Your task to perform on an android device: Search for vegetarian restaurants on Maps Image 0: 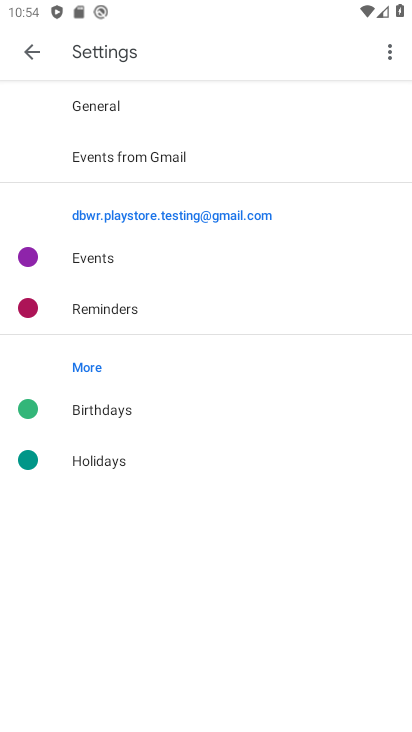
Step 0: press home button
Your task to perform on an android device: Search for vegetarian restaurants on Maps Image 1: 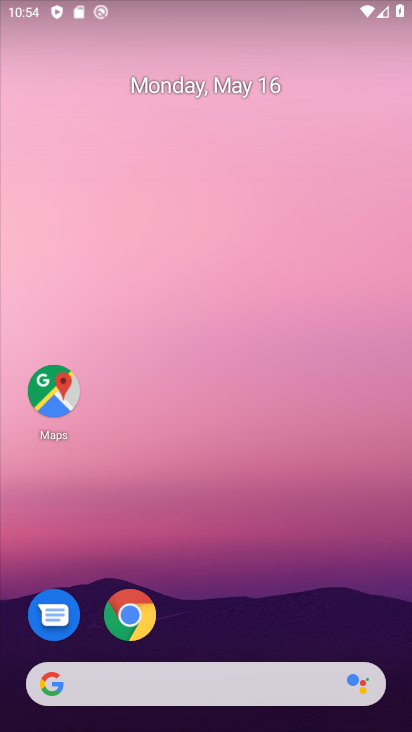
Step 1: drag from (216, 724) to (214, 206)
Your task to perform on an android device: Search for vegetarian restaurants on Maps Image 2: 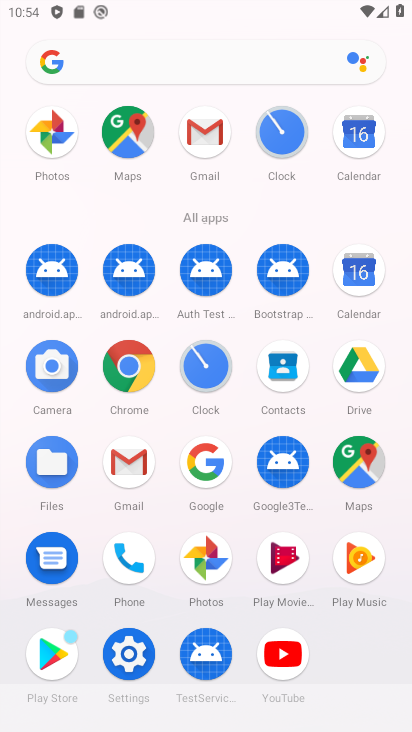
Step 2: click (358, 458)
Your task to perform on an android device: Search for vegetarian restaurants on Maps Image 3: 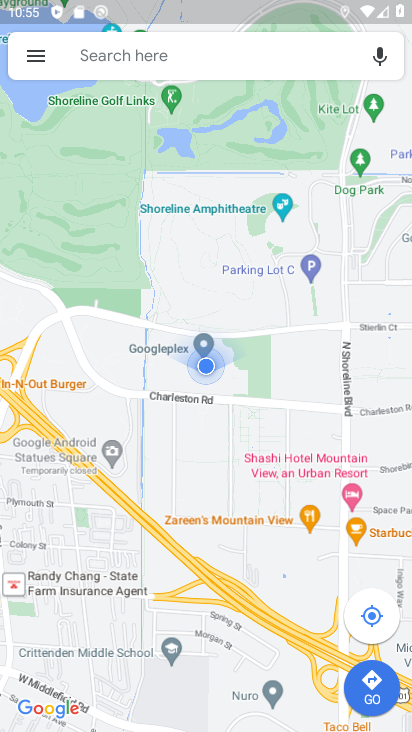
Step 3: click (193, 52)
Your task to perform on an android device: Search for vegetarian restaurants on Maps Image 4: 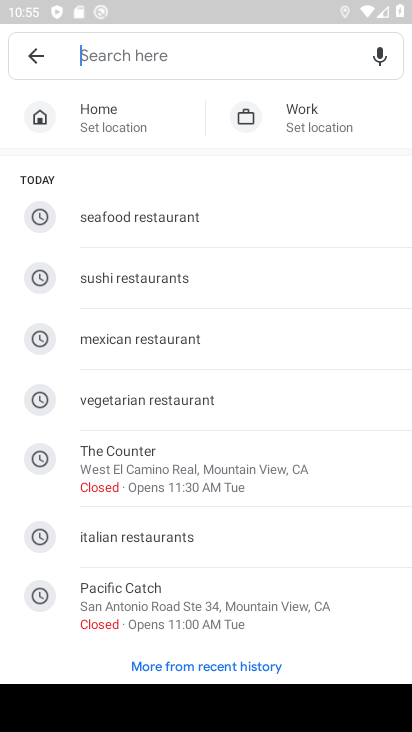
Step 4: type "vegetarian restaurants"
Your task to perform on an android device: Search for vegetarian restaurants on Maps Image 5: 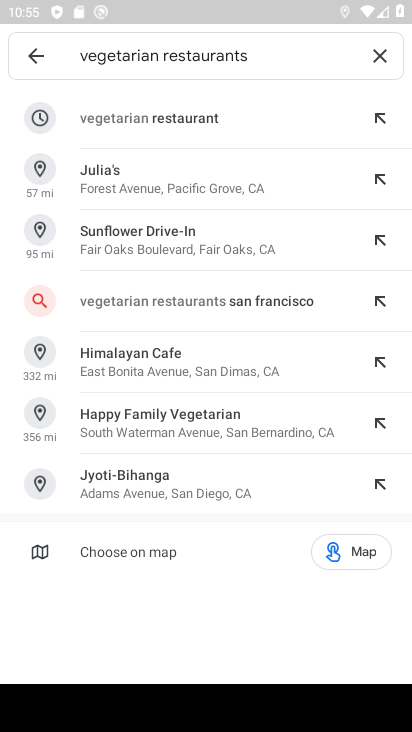
Step 5: click (176, 114)
Your task to perform on an android device: Search for vegetarian restaurants on Maps Image 6: 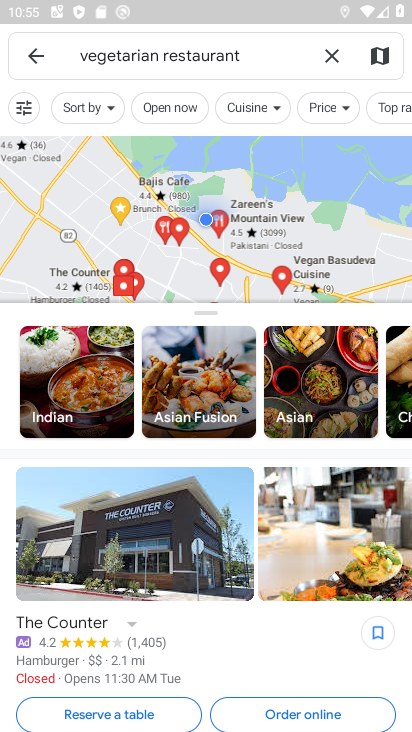
Step 6: task complete